Your task to perform on an android device: Open the calendar and show me this week's events? Image 0: 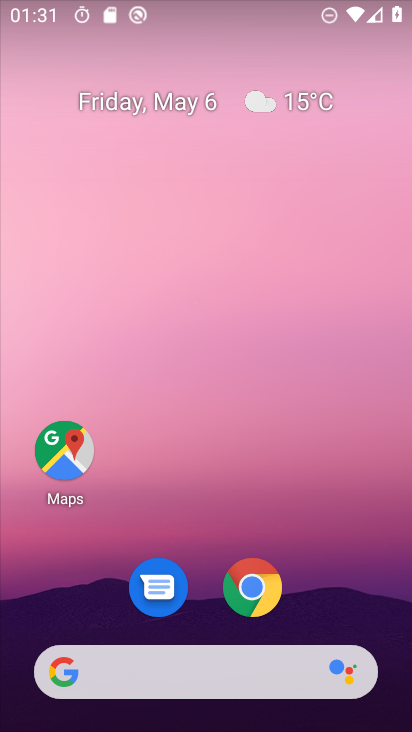
Step 0: drag from (355, 492) to (325, 236)
Your task to perform on an android device: Open the calendar and show me this week's events? Image 1: 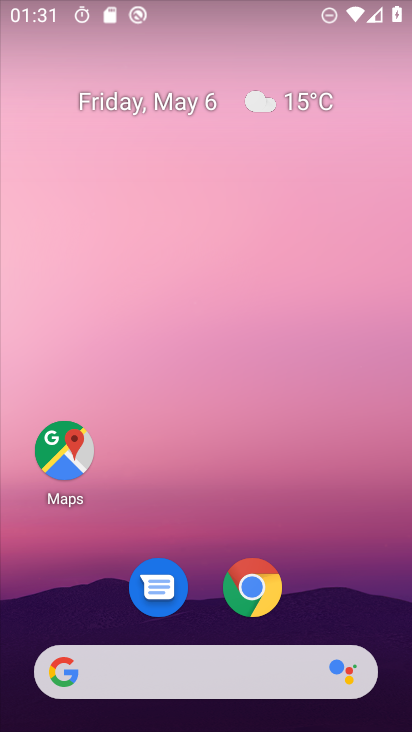
Step 1: drag from (385, 508) to (374, 280)
Your task to perform on an android device: Open the calendar and show me this week's events? Image 2: 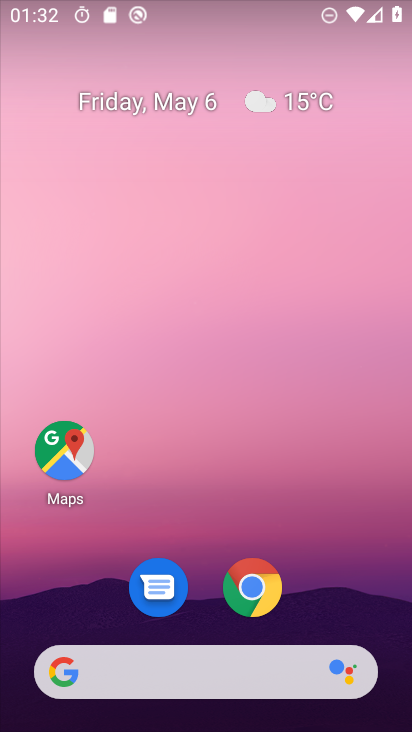
Step 2: drag from (386, 625) to (375, 122)
Your task to perform on an android device: Open the calendar and show me this week's events? Image 3: 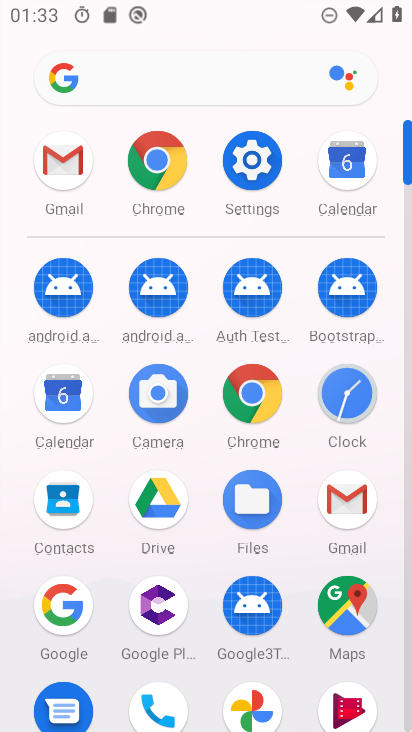
Step 3: click (58, 408)
Your task to perform on an android device: Open the calendar and show me this week's events? Image 4: 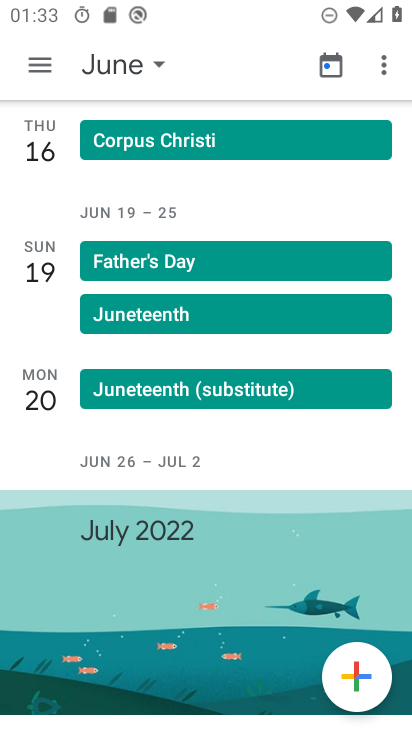
Step 4: click (158, 64)
Your task to perform on an android device: Open the calendar and show me this week's events? Image 5: 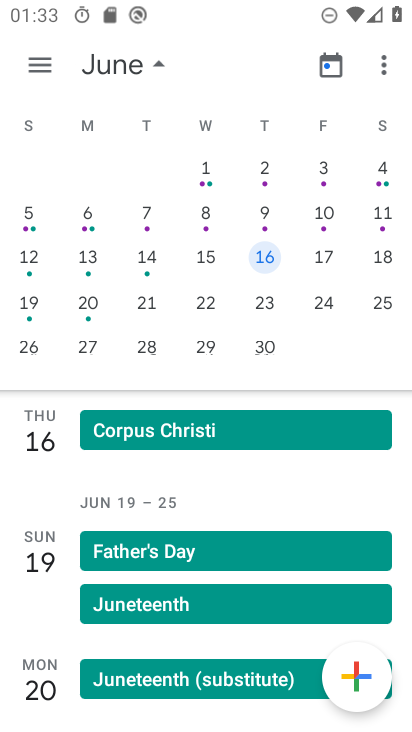
Step 5: drag from (18, 186) to (408, 212)
Your task to perform on an android device: Open the calendar and show me this week's events? Image 6: 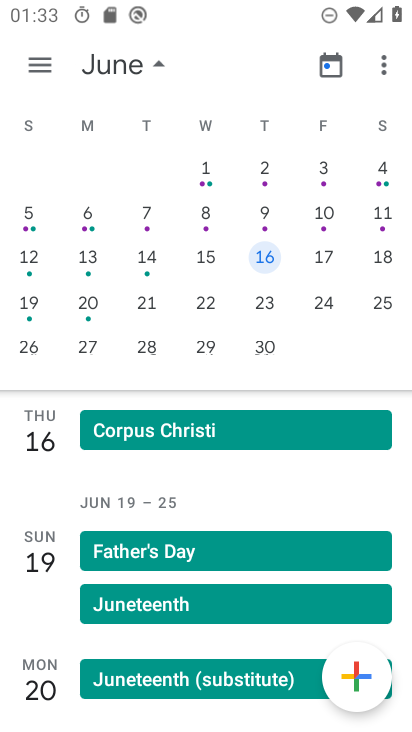
Step 6: drag from (29, 187) to (326, 215)
Your task to perform on an android device: Open the calendar and show me this week's events? Image 7: 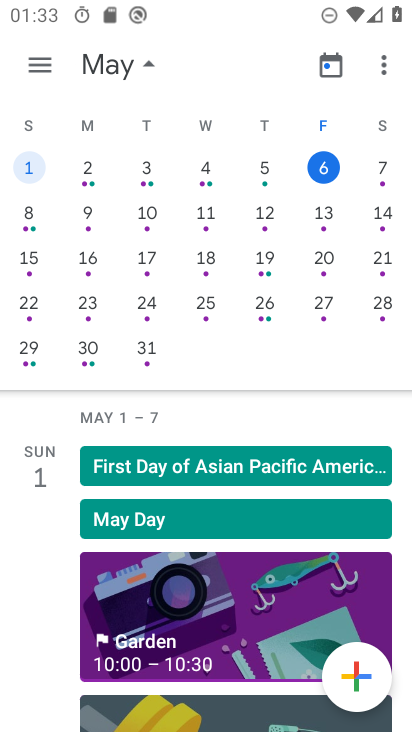
Step 7: click (30, 61)
Your task to perform on an android device: Open the calendar and show me this week's events? Image 8: 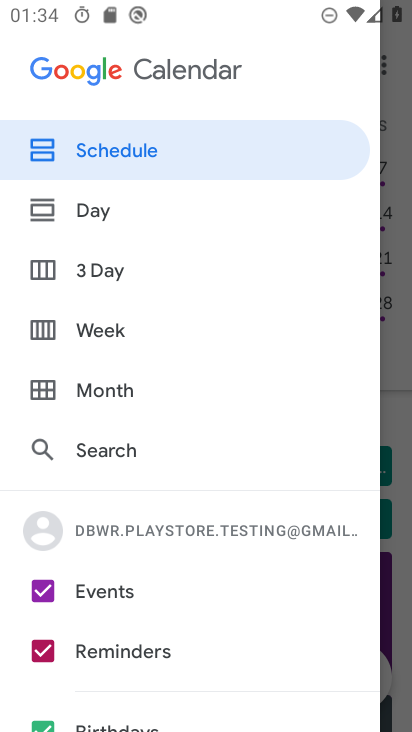
Step 8: click (97, 328)
Your task to perform on an android device: Open the calendar and show me this week's events? Image 9: 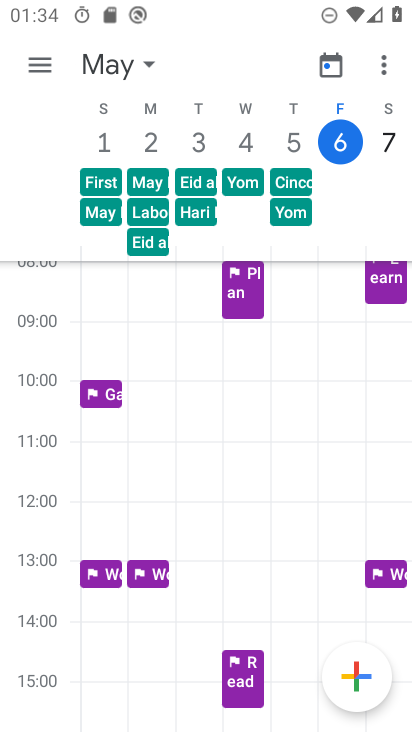
Step 9: task complete